Your task to perform on an android device: Open Yahoo.com Image 0: 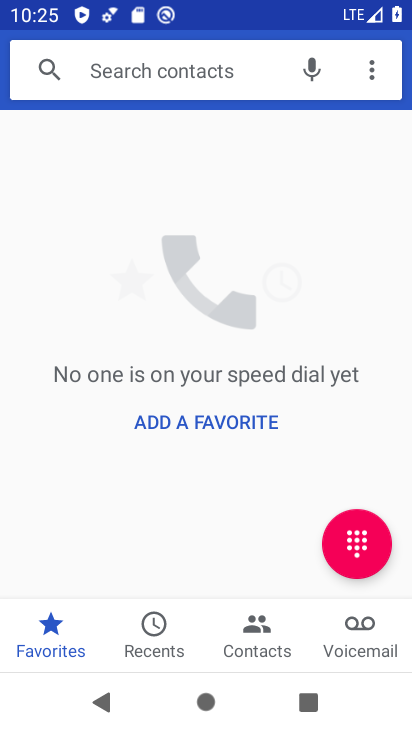
Step 0: press home button
Your task to perform on an android device: Open Yahoo.com Image 1: 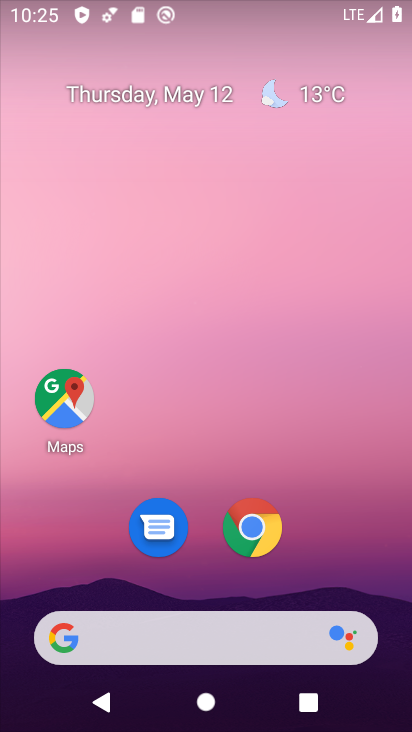
Step 1: click (208, 623)
Your task to perform on an android device: Open Yahoo.com Image 2: 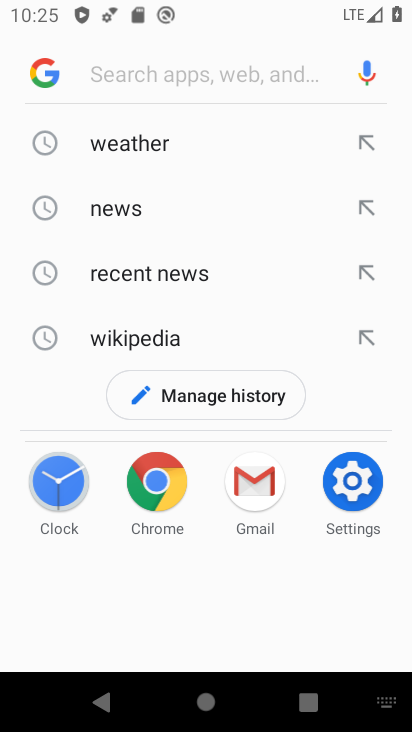
Step 2: click (213, 62)
Your task to perform on an android device: Open Yahoo.com Image 3: 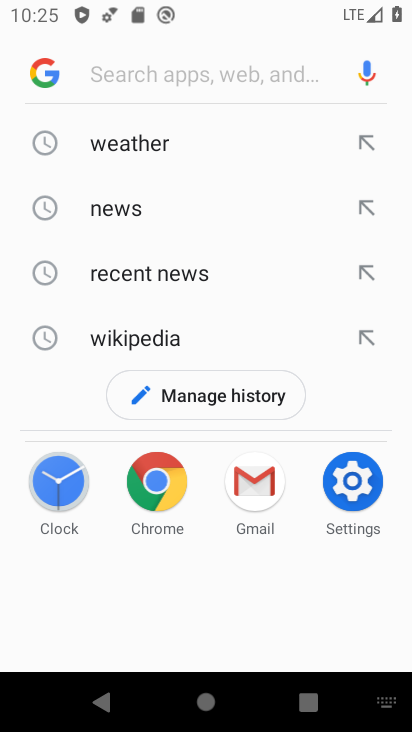
Step 3: type "Yahoo.com"
Your task to perform on an android device: Open Yahoo.com Image 4: 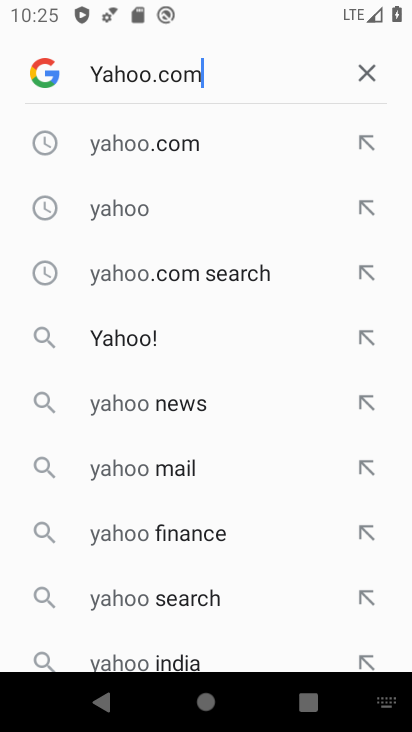
Step 4: type ""
Your task to perform on an android device: Open Yahoo.com Image 5: 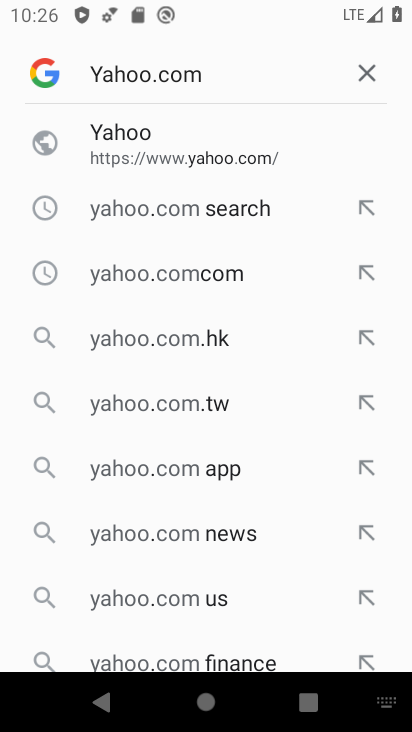
Step 5: click (137, 142)
Your task to perform on an android device: Open Yahoo.com Image 6: 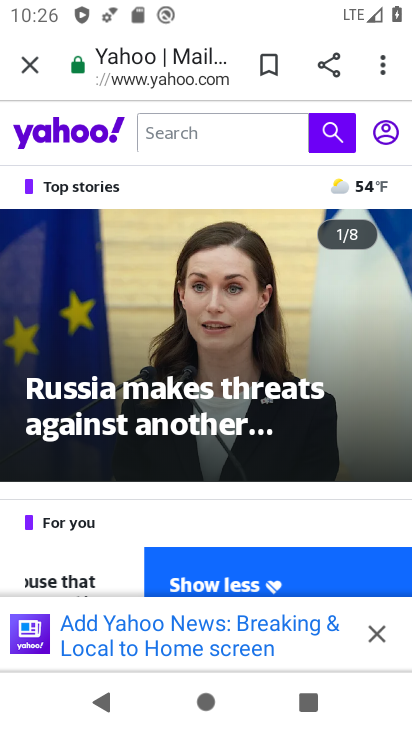
Step 6: task complete